Your task to perform on an android device: turn smart compose on in the gmail app Image 0: 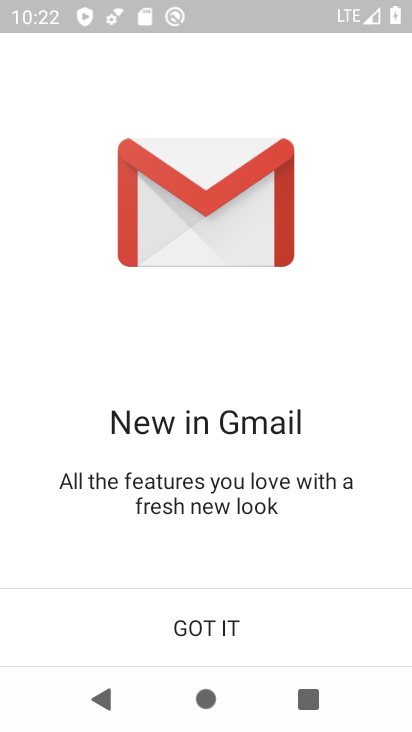
Step 0: click (187, 621)
Your task to perform on an android device: turn smart compose on in the gmail app Image 1: 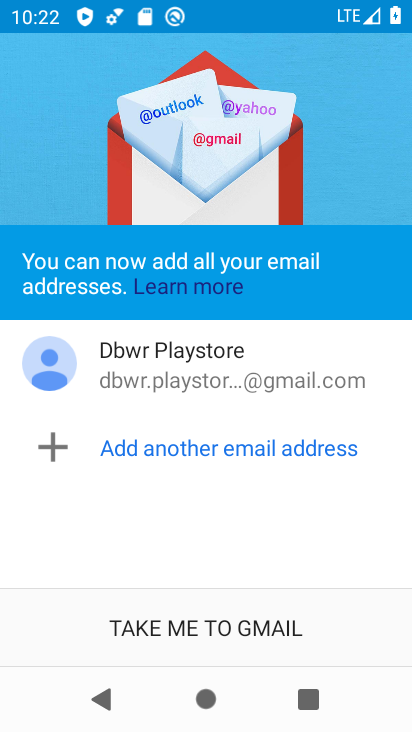
Step 1: click (187, 621)
Your task to perform on an android device: turn smart compose on in the gmail app Image 2: 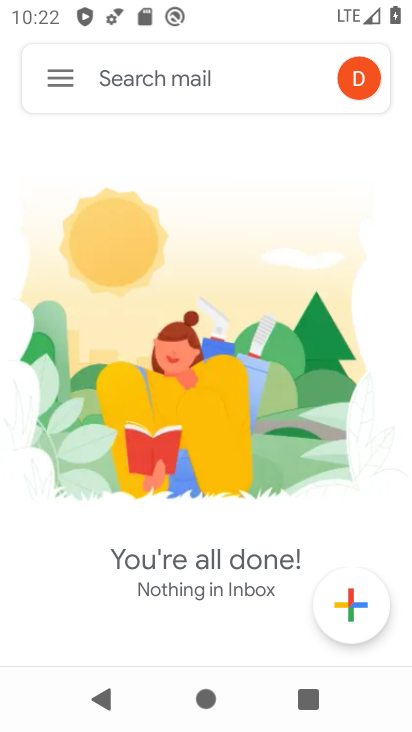
Step 2: click (60, 81)
Your task to perform on an android device: turn smart compose on in the gmail app Image 3: 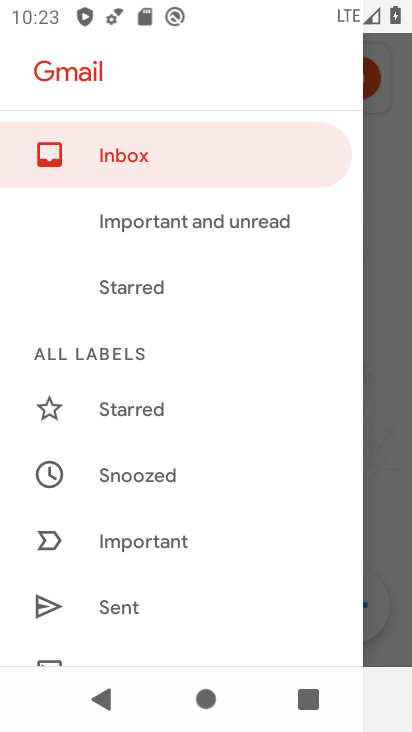
Step 3: drag from (137, 447) to (181, 345)
Your task to perform on an android device: turn smart compose on in the gmail app Image 4: 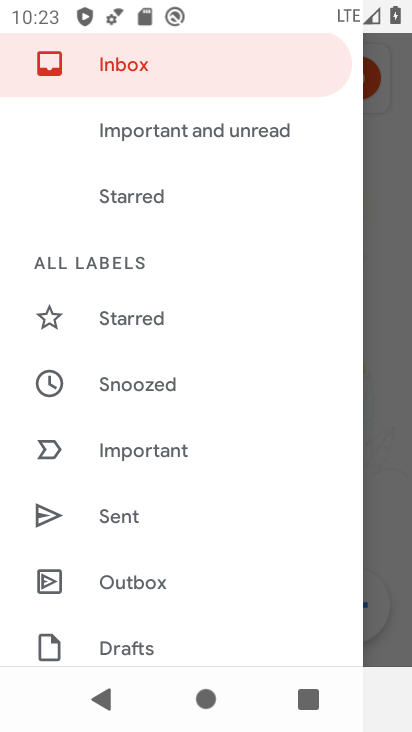
Step 4: drag from (128, 482) to (168, 392)
Your task to perform on an android device: turn smart compose on in the gmail app Image 5: 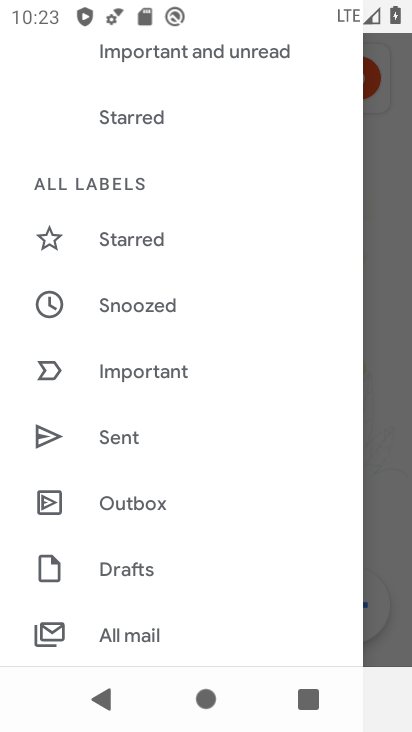
Step 5: drag from (133, 476) to (171, 383)
Your task to perform on an android device: turn smart compose on in the gmail app Image 6: 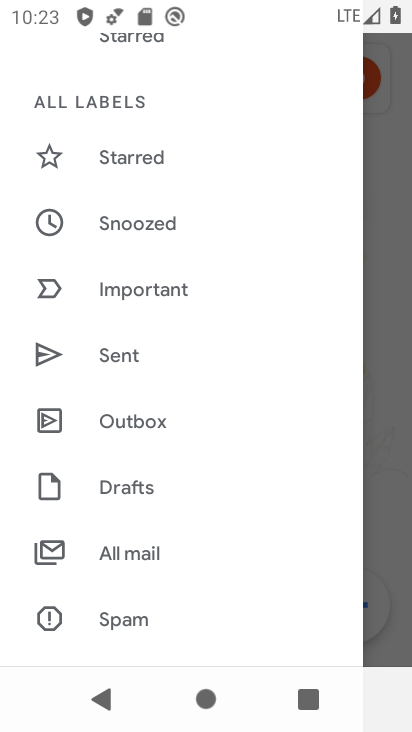
Step 6: drag from (127, 455) to (189, 370)
Your task to perform on an android device: turn smart compose on in the gmail app Image 7: 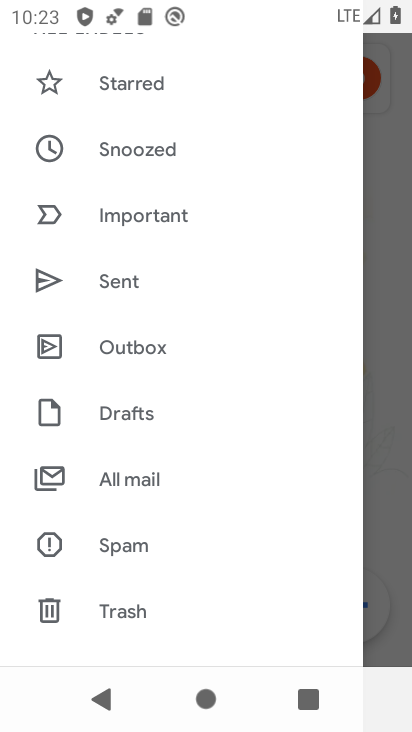
Step 7: drag from (123, 441) to (181, 354)
Your task to perform on an android device: turn smart compose on in the gmail app Image 8: 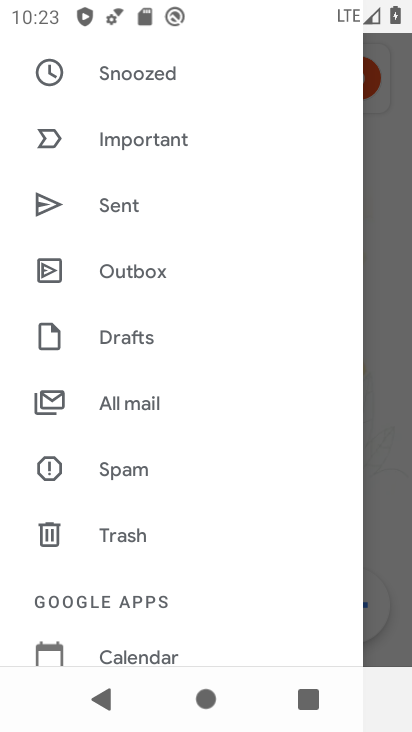
Step 8: drag from (115, 437) to (188, 342)
Your task to perform on an android device: turn smart compose on in the gmail app Image 9: 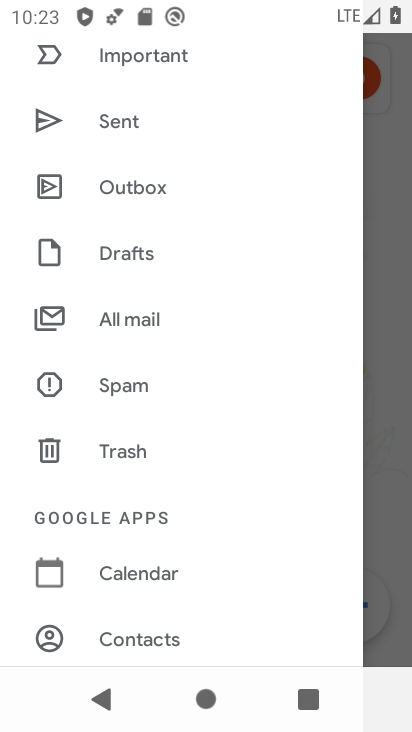
Step 9: drag from (111, 481) to (225, 346)
Your task to perform on an android device: turn smart compose on in the gmail app Image 10: 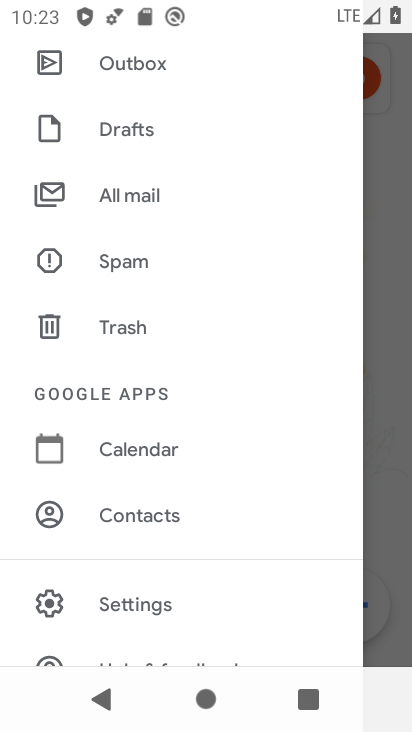
Step 10: drag from (127, 568) to (213, 458)
Your task to perform on an android device: turn smart compose on in the gmail app Image 11: 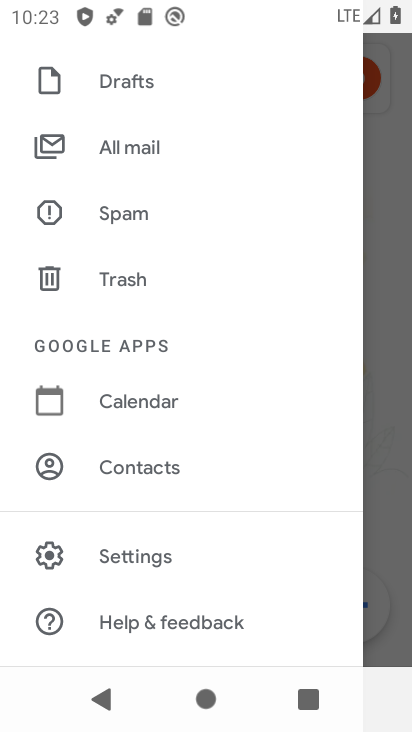
Step 11: click (156, 561)
Your task to perform on an android device: turn smart compose on in the gmail app Image 12: 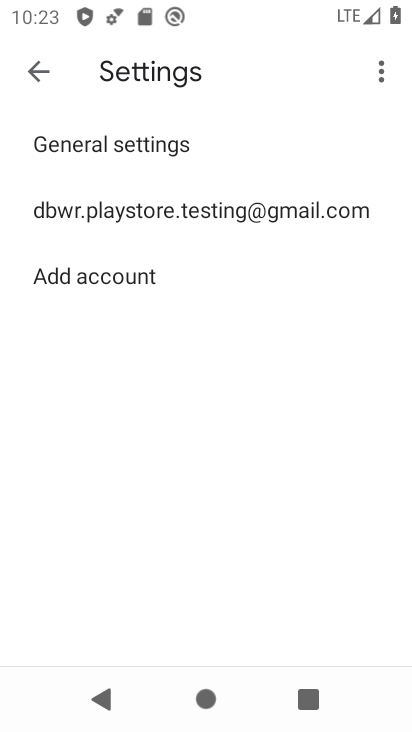
Step 12: click (167, 208)
Your task to perform on an android device: turn smart compose on in the gmail app Image 13: 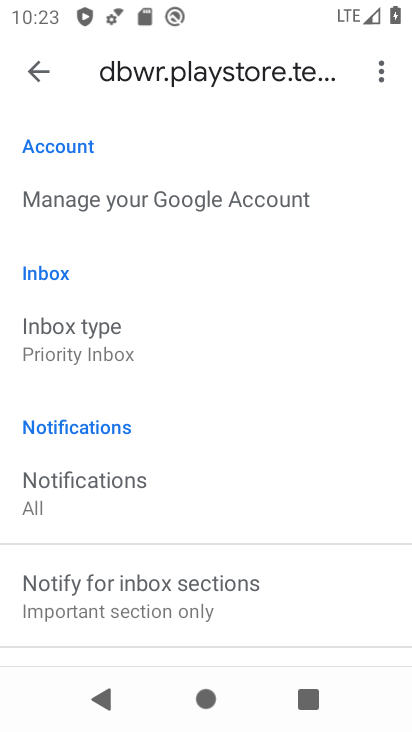
Step 13: task complete